Your task to perform on an android device: Search for "jbl charge 4" on walmart.com, select the first entry, and add it to the cart. Image 0: 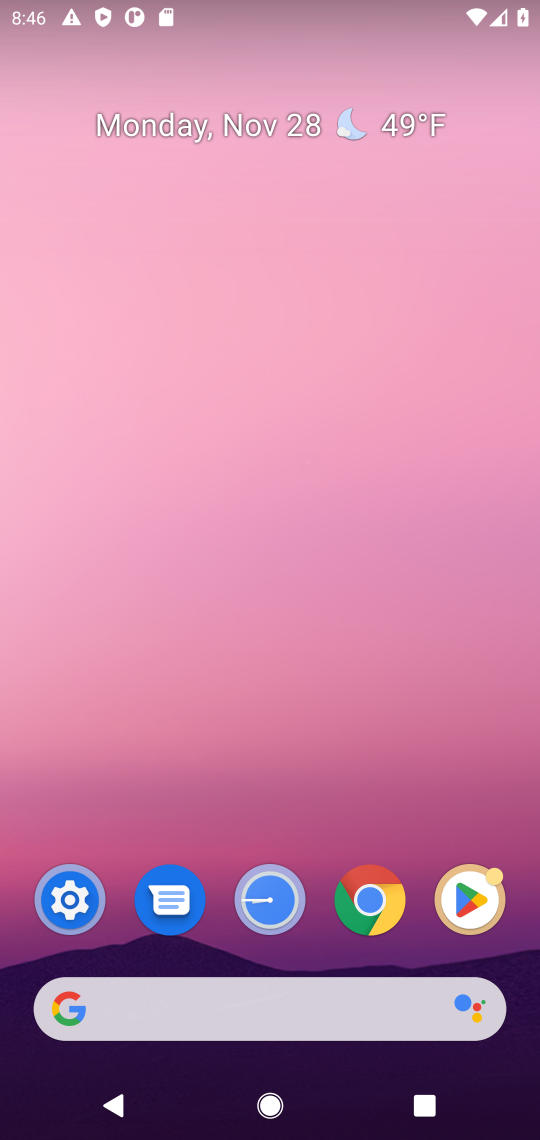
Step 0: click (214, 1028)
Your task to perform on an android device: Search for "jbl charge 4" on walmart.com, select the first entry, and add it to the cart. Image 1: 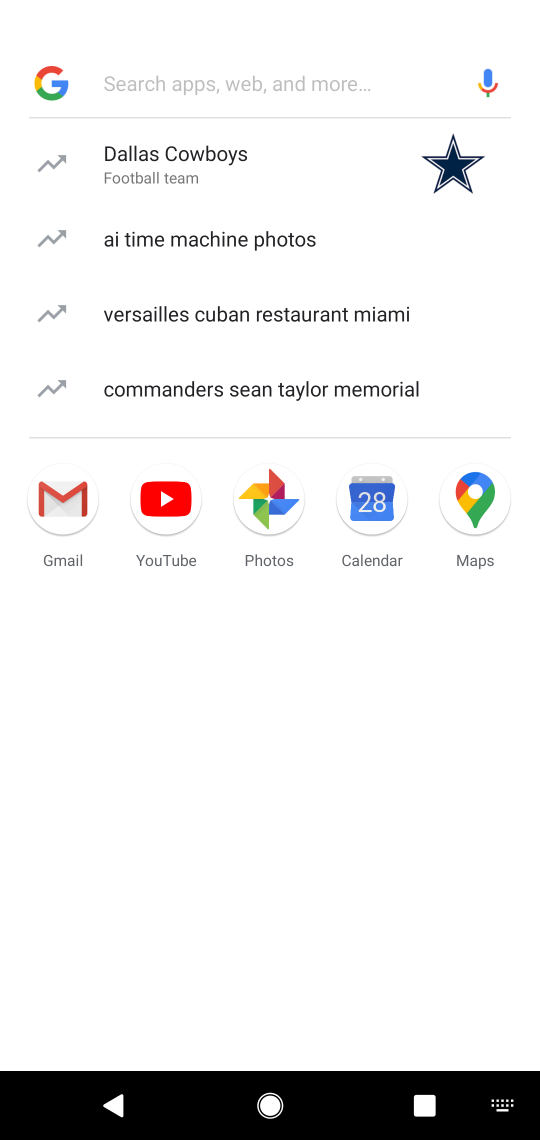
Step 1: type "walmart"
Your task to perform on an android device: Search for "jbl charge 4" on walmart.com, select the first entry, and add it to the cart. Image 2: 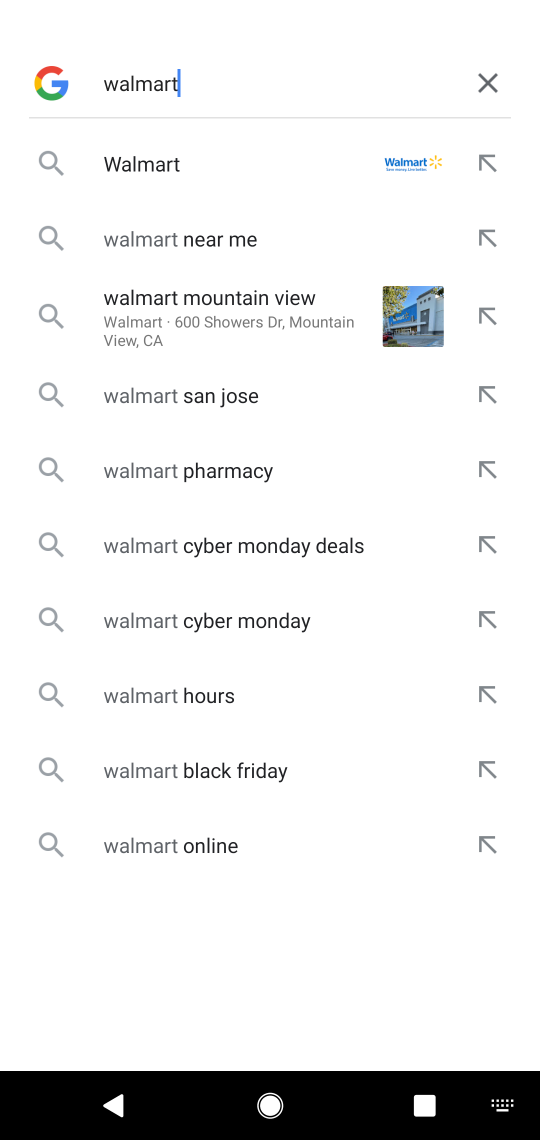
Step 2: click (84, 144)
Your task to perform on an android device: Search for "jbl charge 4" on walmart.com, select the first entry, and add it to the cart. Image 3: 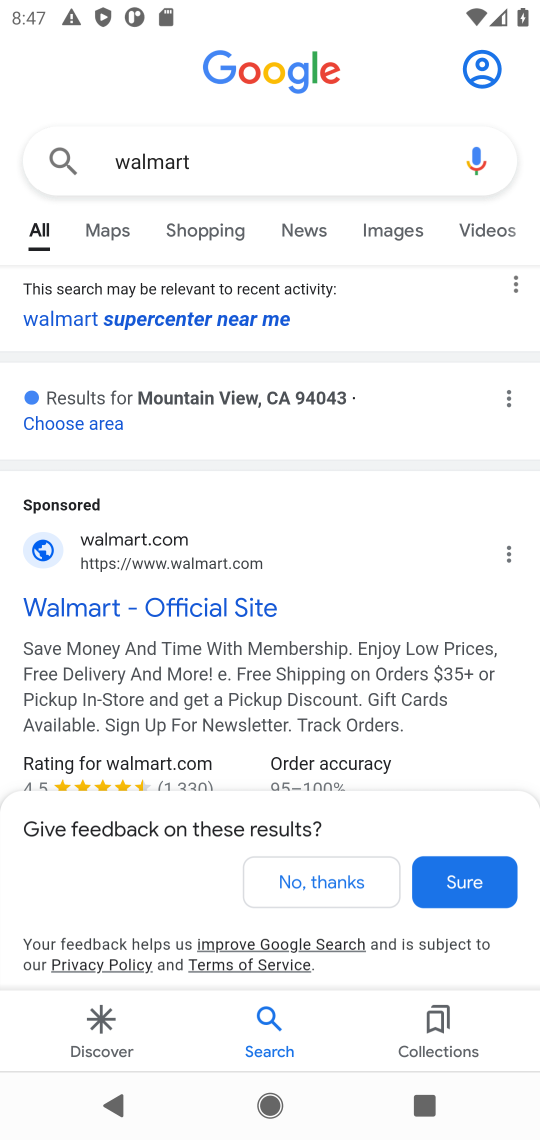
Step 3: click (68, 592)
Your task to perform on an android device: Search for "jbl charge 4" on walmart.com, select the first entry, and add it to the cart. Image 4: 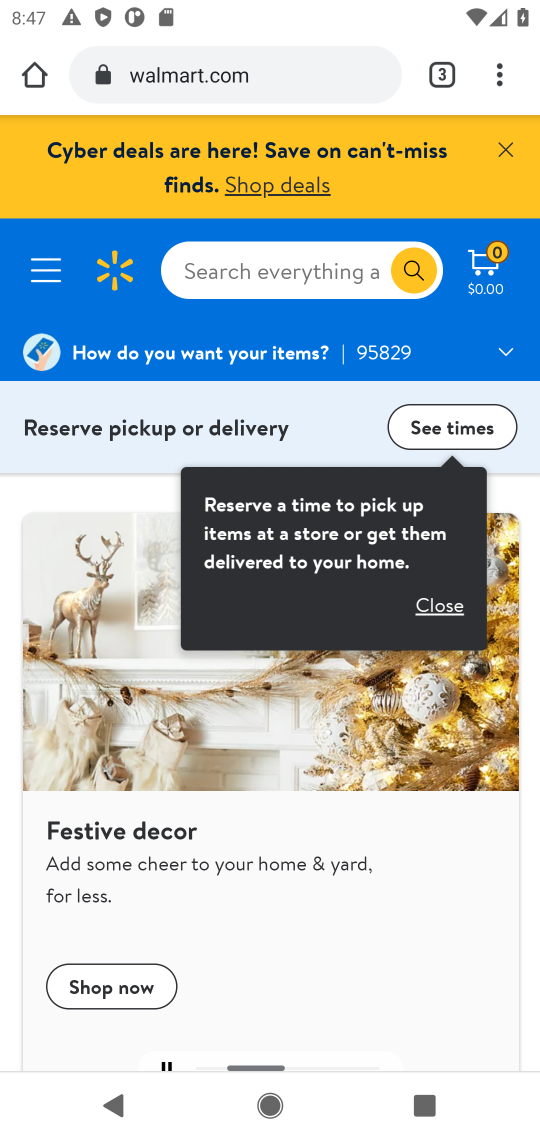
Step 4: click (505, 148)
Your task to perform on an android device: Search for "jbl charge 4" on walmart.com, select the first entry, and add it to the cart. Image 5: 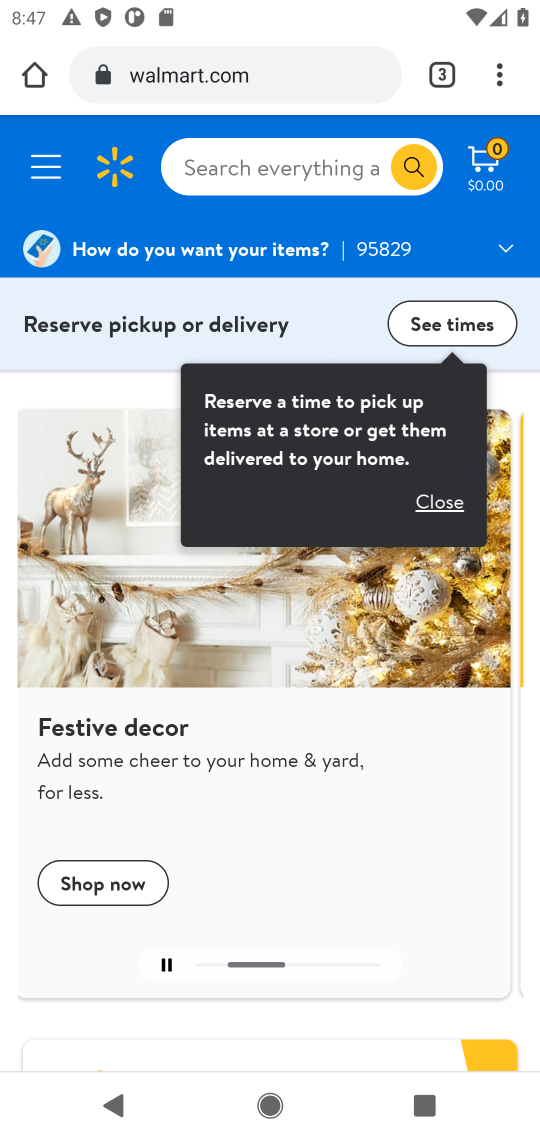
Step 5: click (285, 266)
Your task to perform on an android device: Search for "jbl charge 4" on walmart.com, select the first entry, and add it to the cart. Image 6: 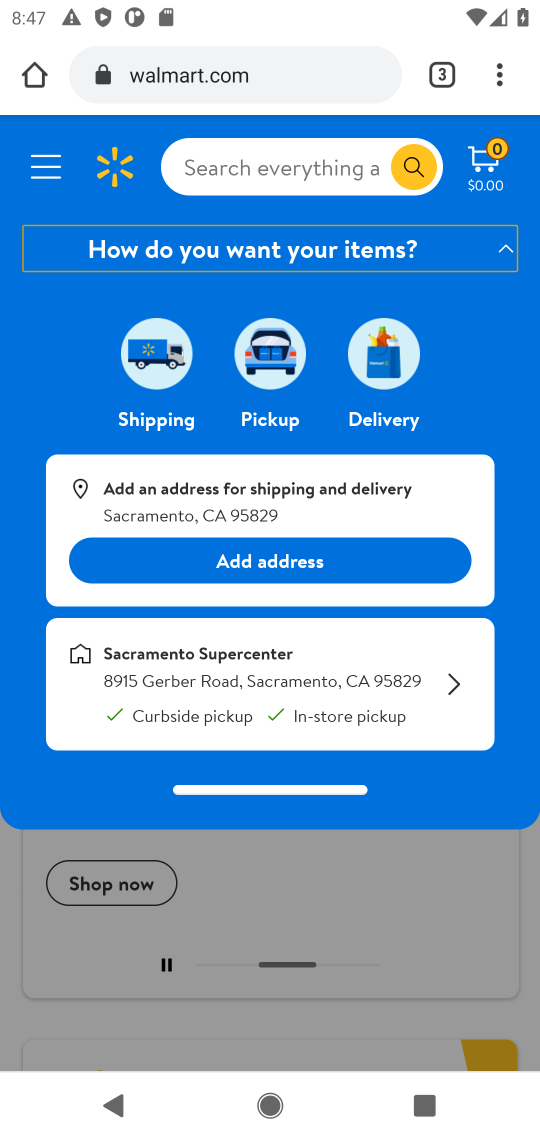
Step 6: click (285, 197)
Your task to perform on an android device: Search for "jbl charge 4" on walmart.com, select the first entry, and add it to the cart. Image 7: 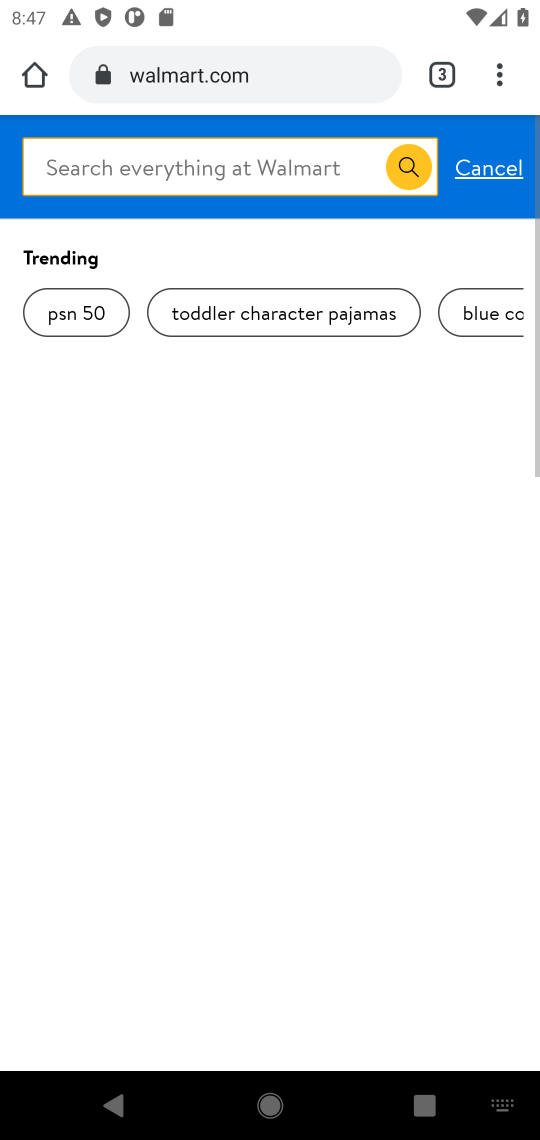
Step 7: click (274, 186)
Your task to perform on an android device: Search for "jbl charge 4" on walmart.com, select the first entry, and add it to the cart. Image 8: 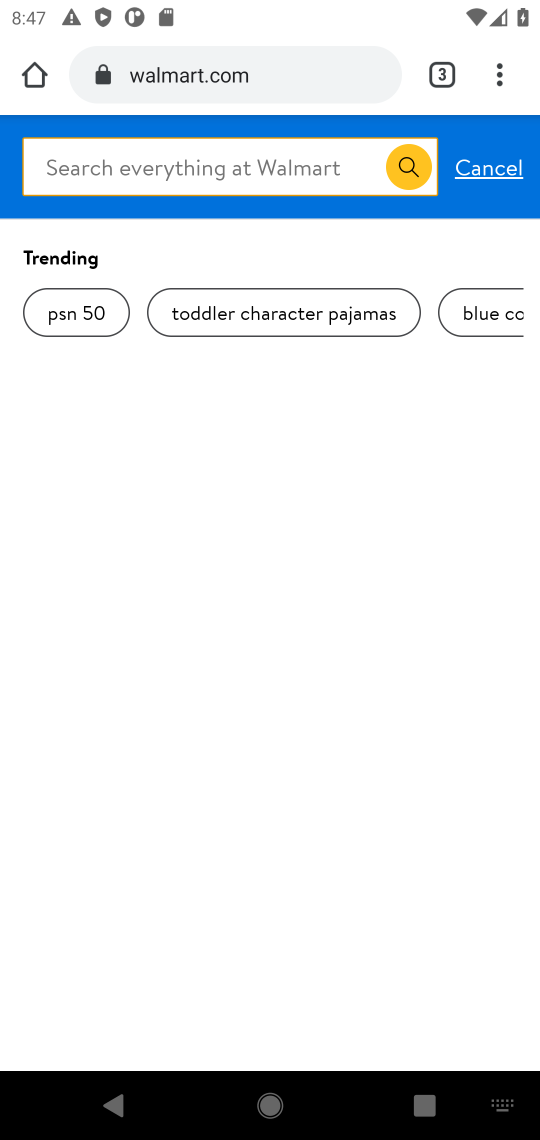
Step 8: type "jbl charge 4\\"
Your task to perform on an android device: Search for "jbl charge 4" on walmart.com, select the first entry, and add it to the cart. Image 9: 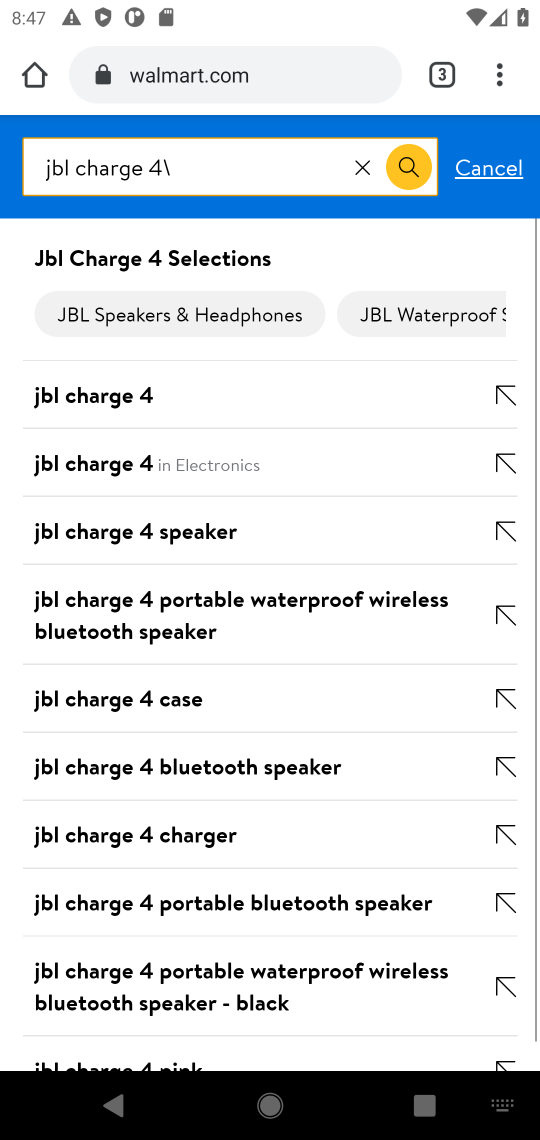
Step 9: click (212, 247)
Your task to perform on an android device: Search for "jbl charge 4" on walmart.com, select the first entry, and add it to the cart. Image 10: 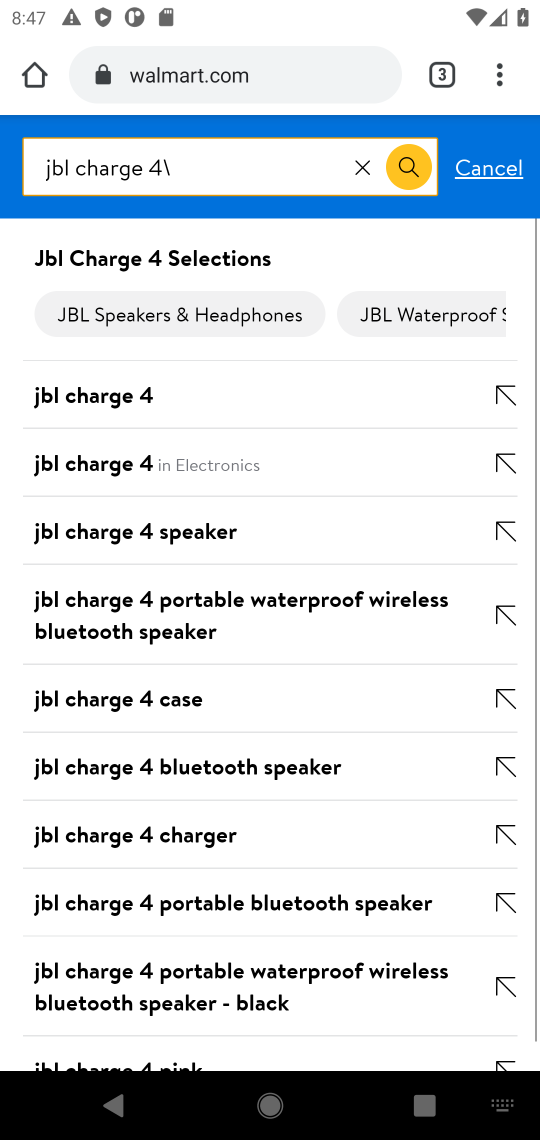
Step 10: click (152, 382)
Your task to perform on an android device: Search for "jbl charge 4" on walmart.com, select the first entry, and add it to the cart. Image 11: 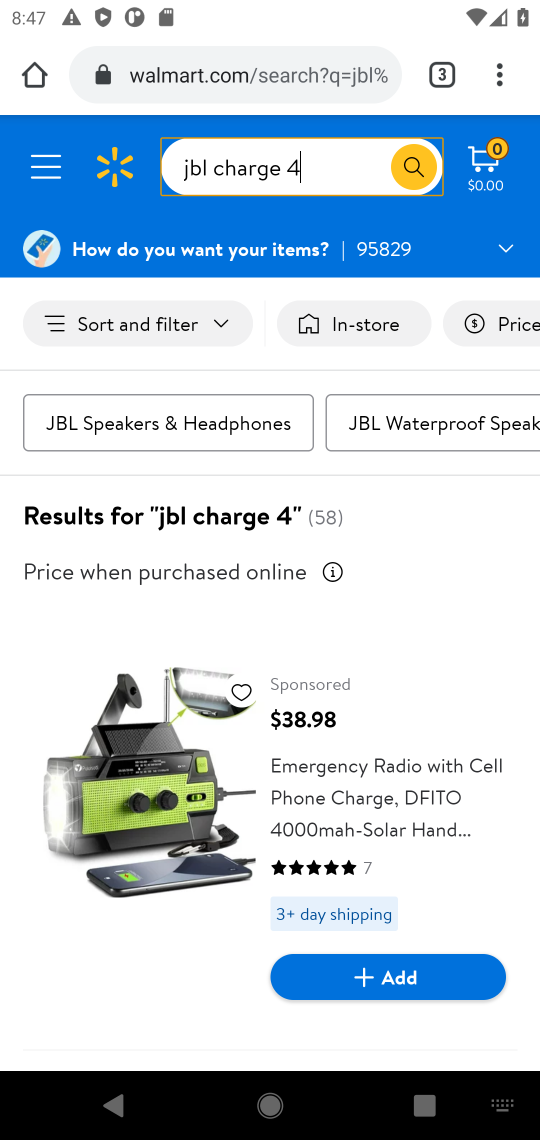
Step 11: click (393, 982)
Your task to perform on an android device: Search for "jbl charge 4" on walmart.com, select the first entry, and add it to the cart. Image 12: 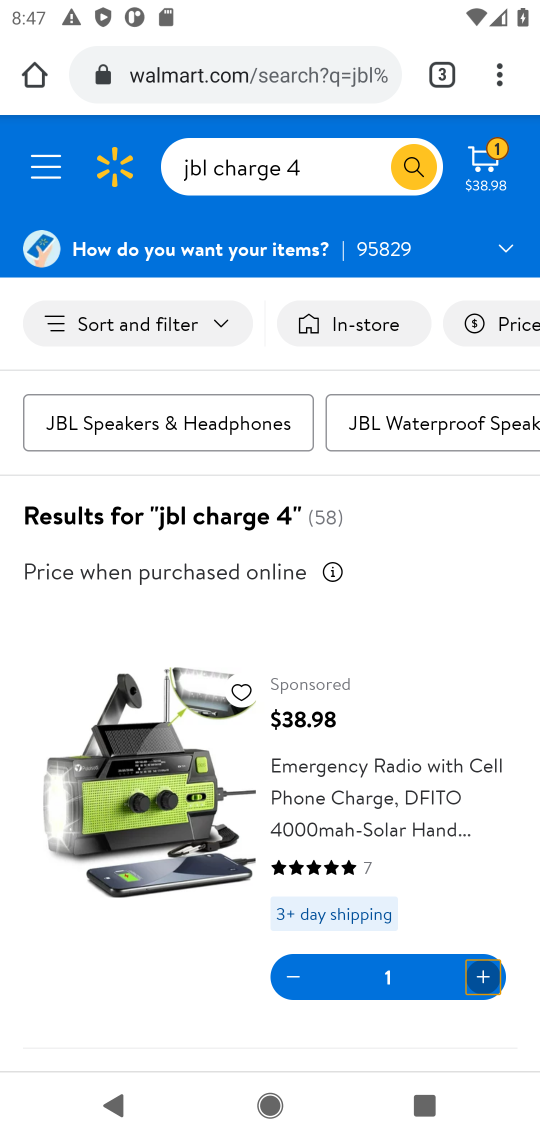
Step 12: task complete